Your task to perform on an android device: Go to network settings Image 0: 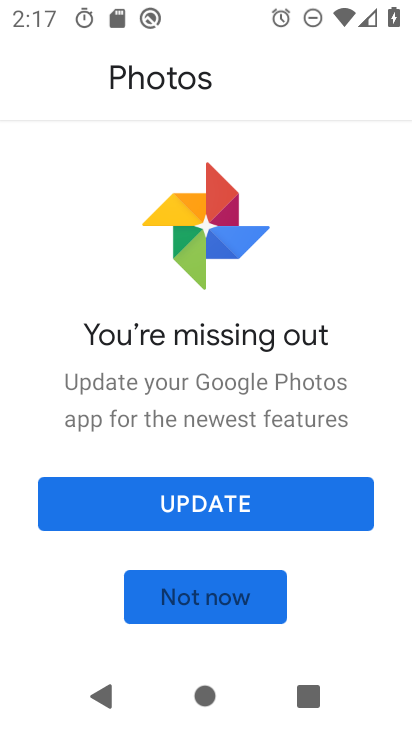
Step 0: press back button
Your task to perform on an android device: Go to network settings Image 1: 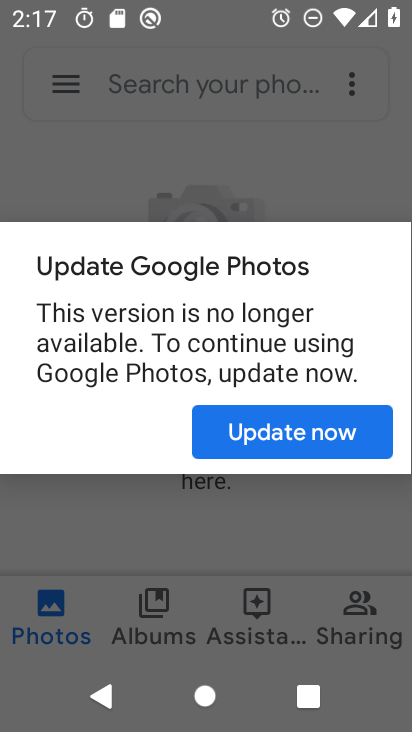
Step 1: press home button
Your task to perform on an android device: Go to network settings Image 2: 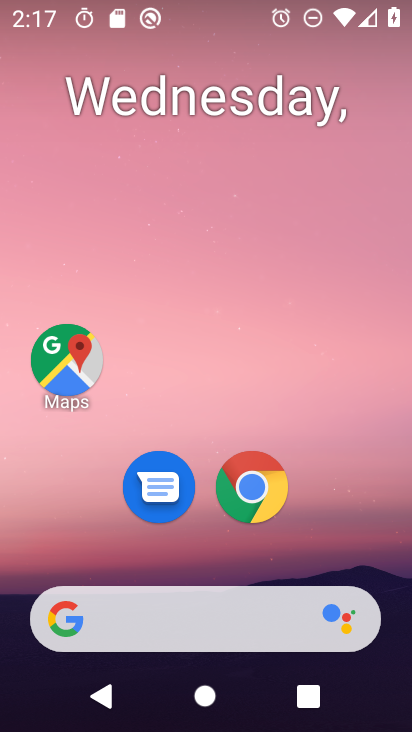
Step 2: drag from (63, 583) to (239, 15)
Your task to perform on an android device: Go to network settings Image 3: 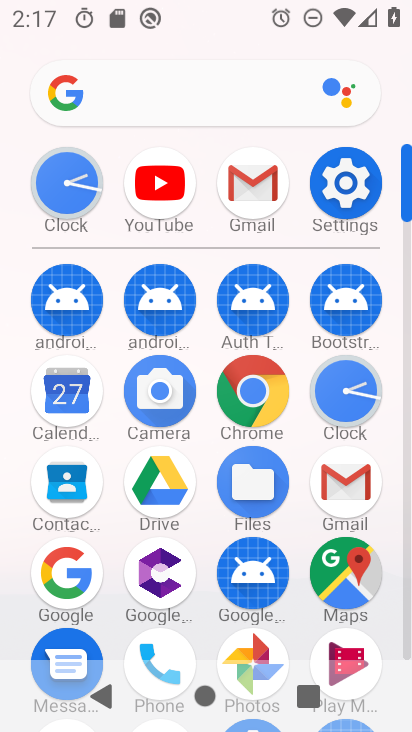
Step 3: click (347, 177)
Your task to perform on an android device: Go to network settings Image 4: 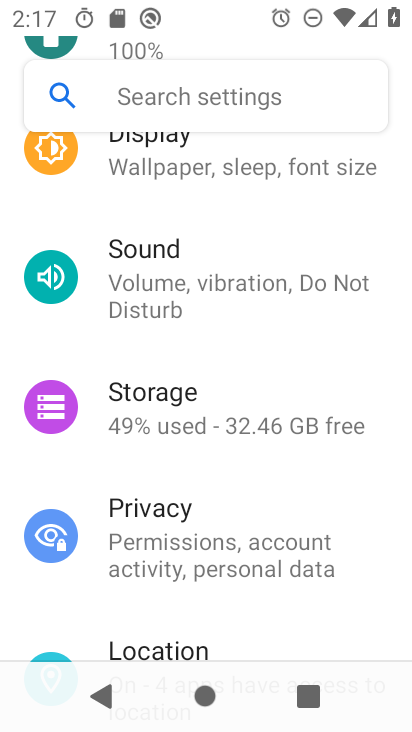
Step 4: drag from (211, 241) to (168, 720)
Your task to perform on an android device: Go to network settings Image 5: 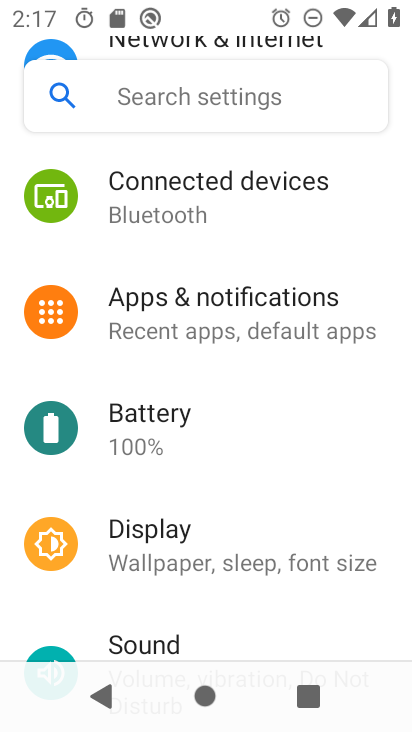
Step 5: drag from (223, 218) to (212, 657)
Your task to perform on an android device: Go to network settings Image 6: 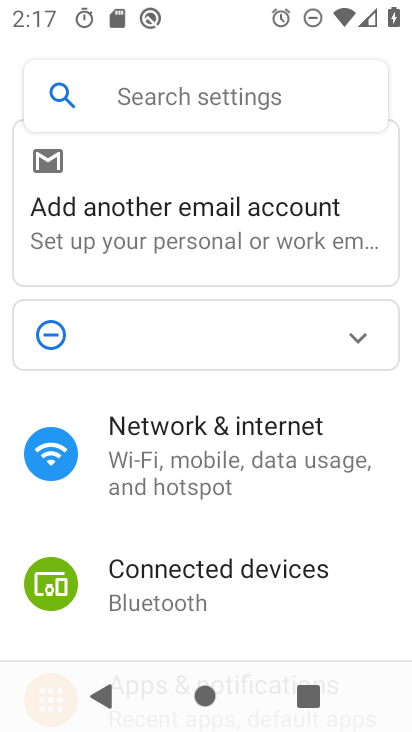
Step 6: click (199, 450)
Your task to perform on an android device: Go to network settings Image 7: 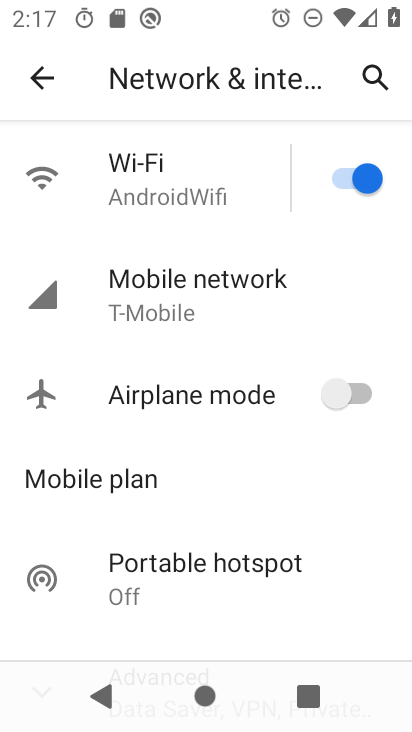
Step 7: task complete